Your task to perform on an android device: Find coffee shops on Maps Image 0: 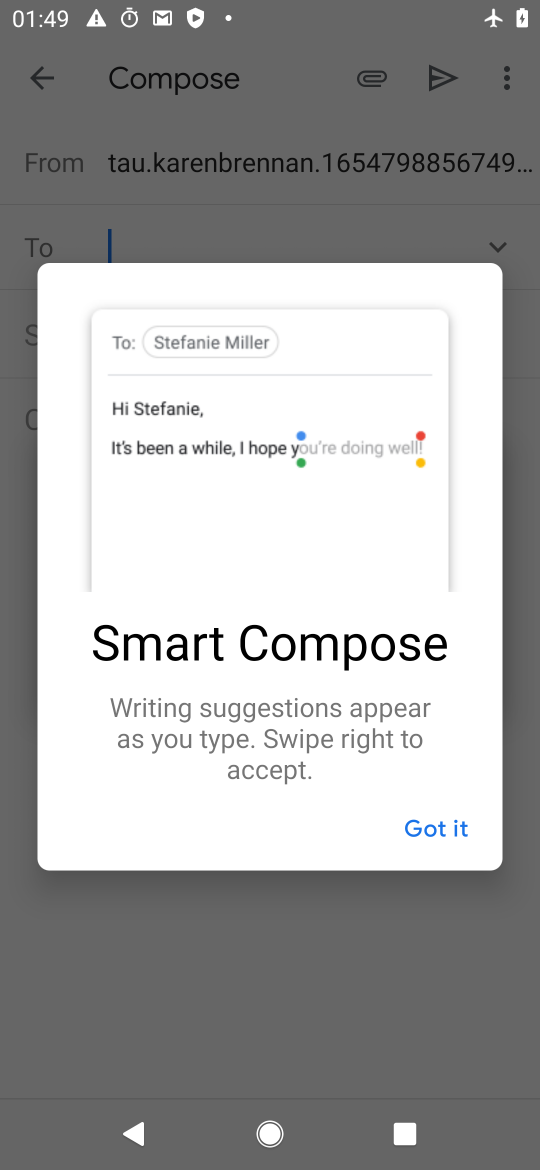
Step 0: click (449, 819)
Your task to perform on an android device: Find coffee shops on Maps Image 1: 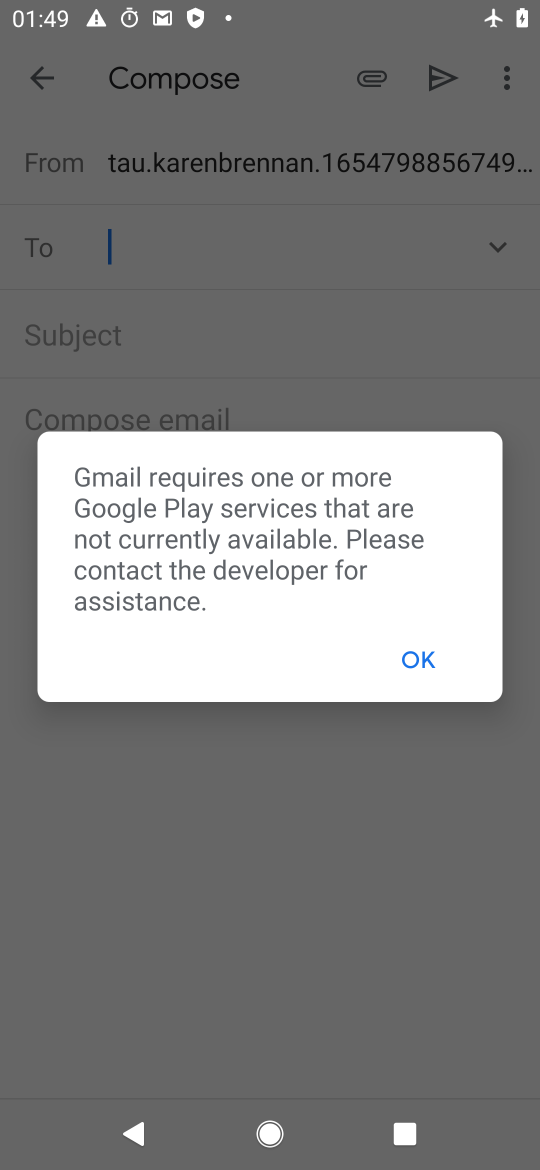
Step 1: click (418, 659)
Your task to perform on an android device: Find coffee shops on Maps Image 2: 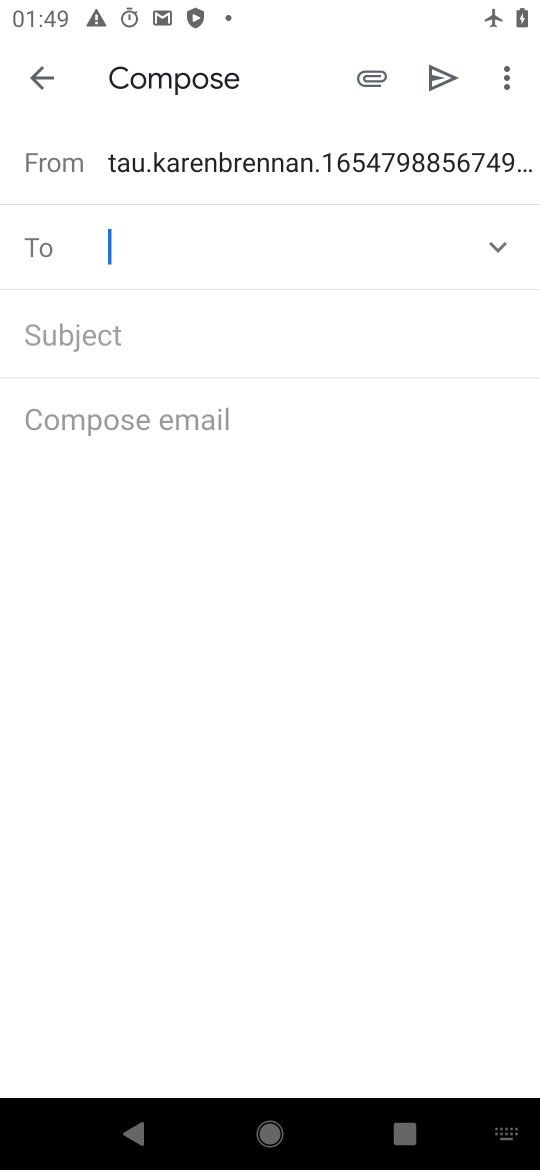
Step 2: press home button
Your task to perform on an android device: Find coffee shops on Maps Image 3: 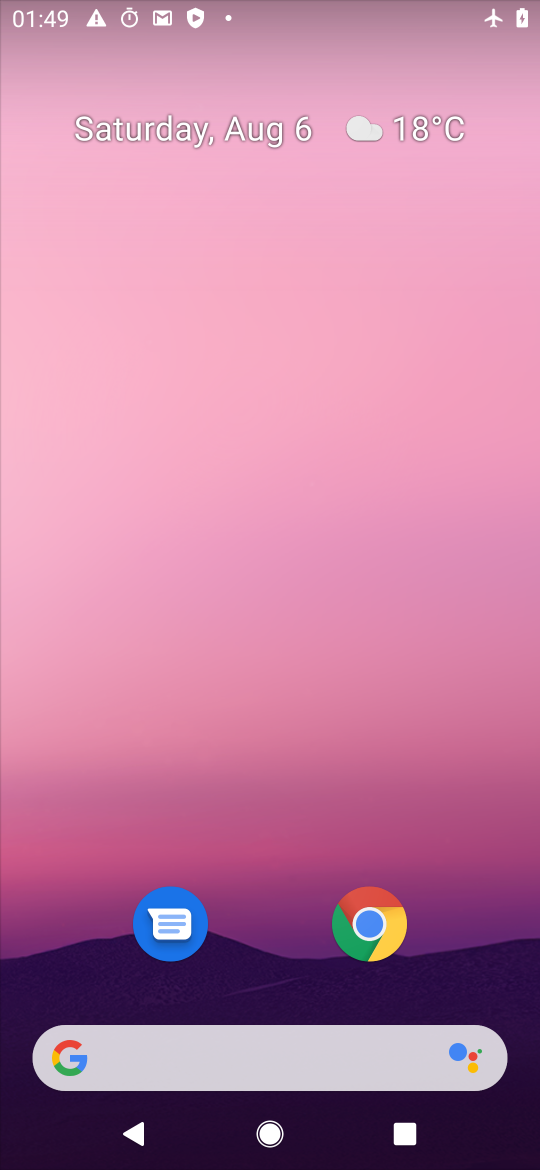
Step 3: drag from (380, 1043) to (380, 454)
Your task to perform on an android device: Find coffee shops on Maps Image 4: 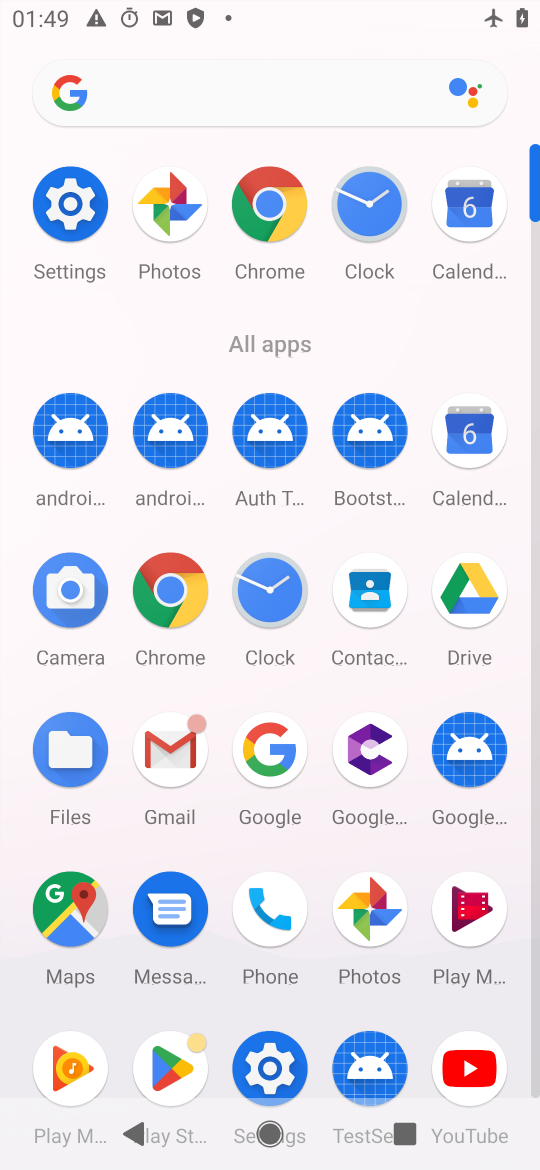
Step 4: click (82, 896)
Your task to perform on an android device: Find coffee shops on Maps Image 5: 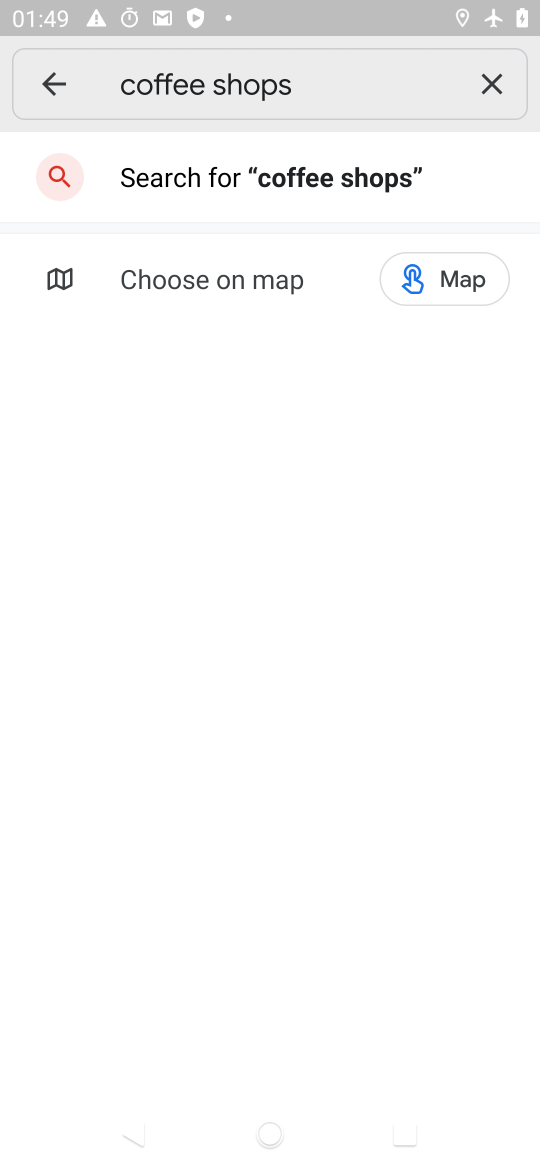
Step 5: task complete